Your task to perform on an android device: Open the calendar and show me this week's events Image 0: 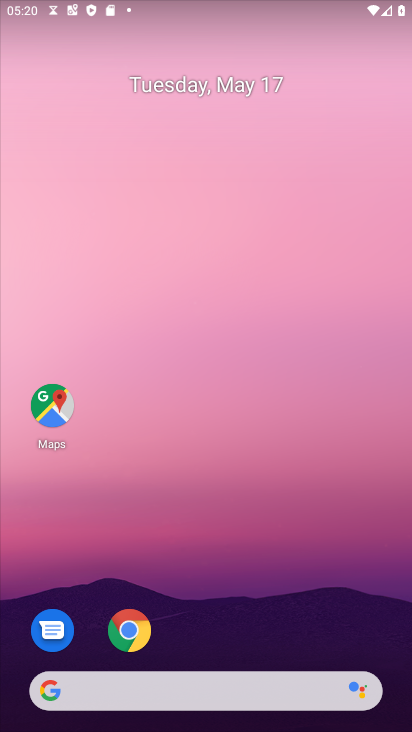
Step 0: drag from (197, 654) to (167, 476)
Your task to perform on an android device: Open the calendar and show me this week's events Image 1: 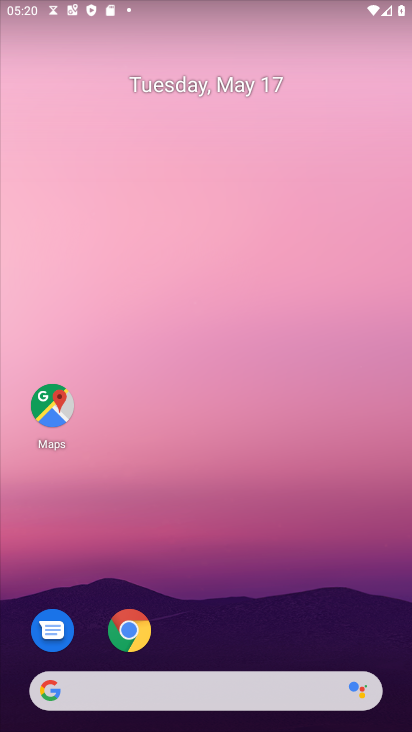
Step 1: drag from (266, 606) to (223, 38)
Your task to perform on an android device: Open the calendar and show me this week's events Image 2: 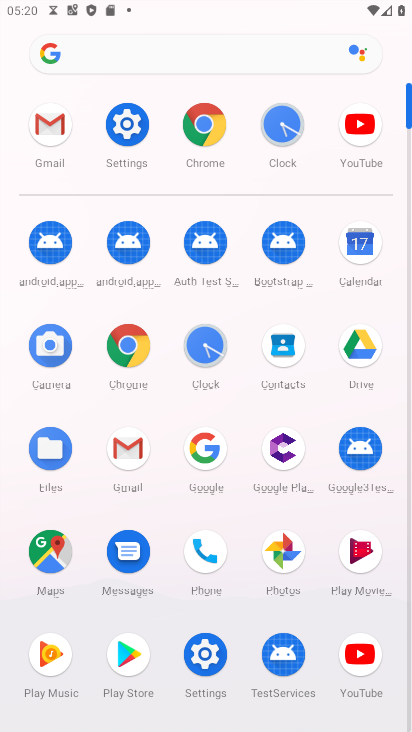
Step 2: click (370, 230)
Your task to perform on an android device: Open the calendar and show me this week's events Image 3: 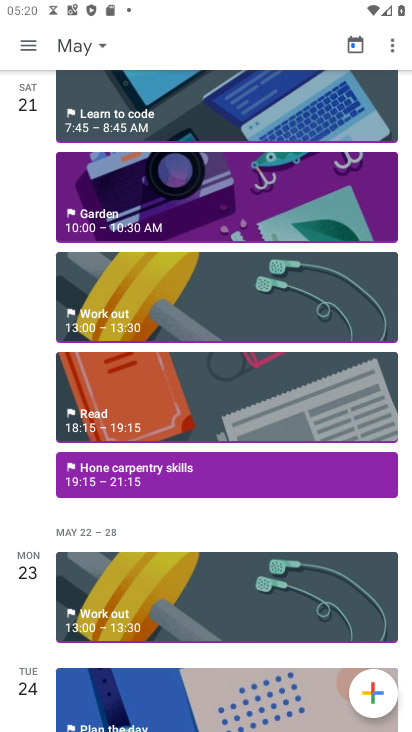
Step 3: click (27, 50)
Your task to perform on an android device: Open the calendar and show me this week's events Image 4: 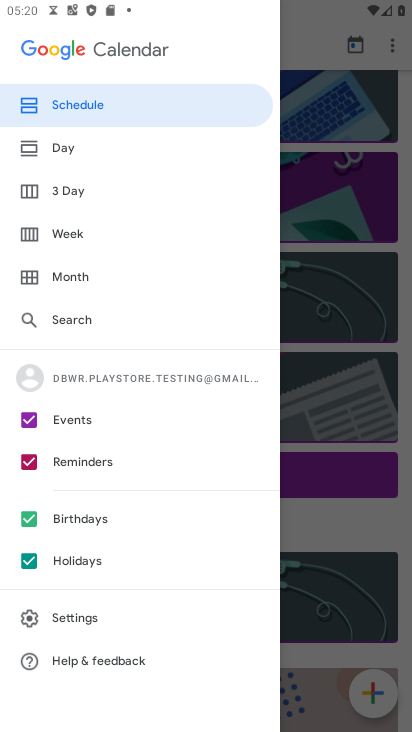
Step 4: click (89, 116)
Your task to perform on an android device: Open the calendar and show me this week's events Image 5: 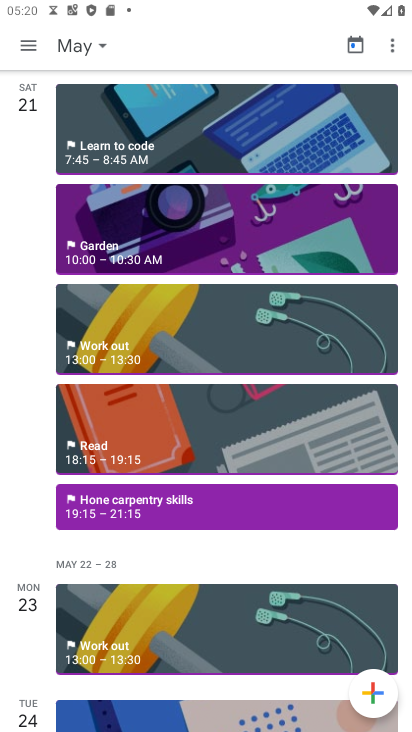
Step 5: drag from (269, 376) to (299, 656)
Your task to perform on an android device: Open the calendar and show me this week's events Image 6: 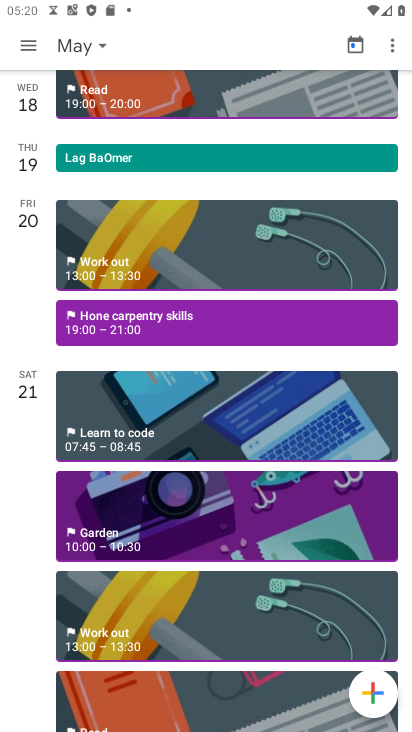
Step 6: drag from (252, 128) to (261, 591)
Your task to perform on an android device: Open the calendar and show me this week's events Image 7: 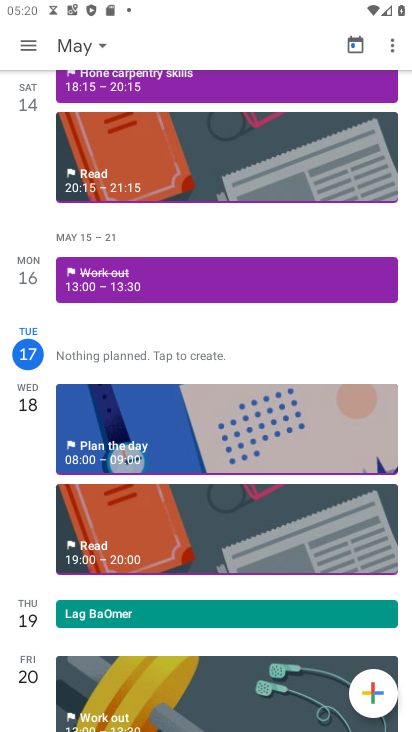
Step 7: click (229, 210)
Your task to perform on an android device: Open the calendar and show me this week's events Image 8: 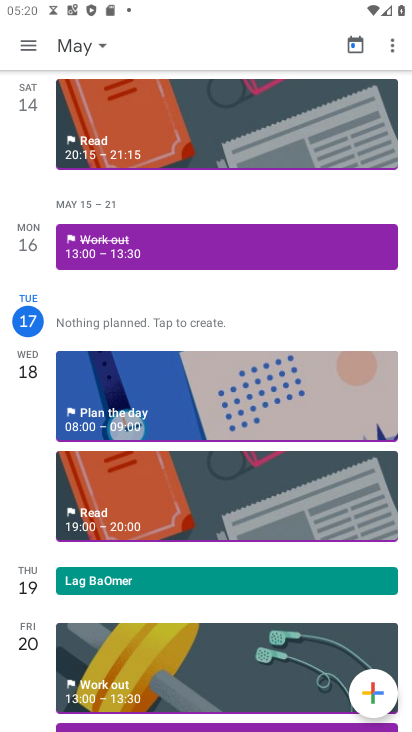
Step 8: task complete